Your task to perform on an android device: check storage Image 0: 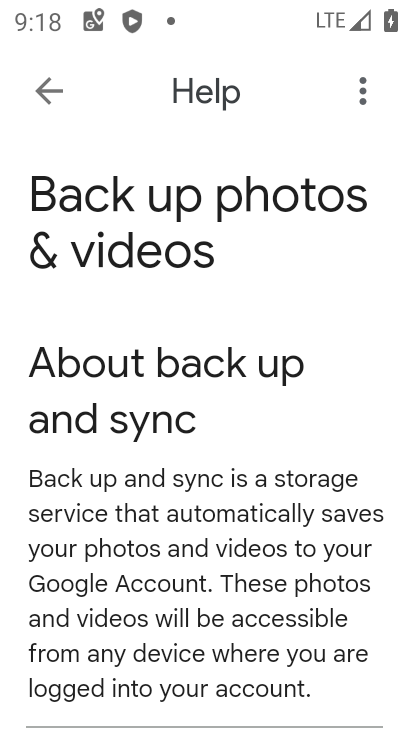
Step 0: press home button
Your task to perform on an android device: check storage Image 1: 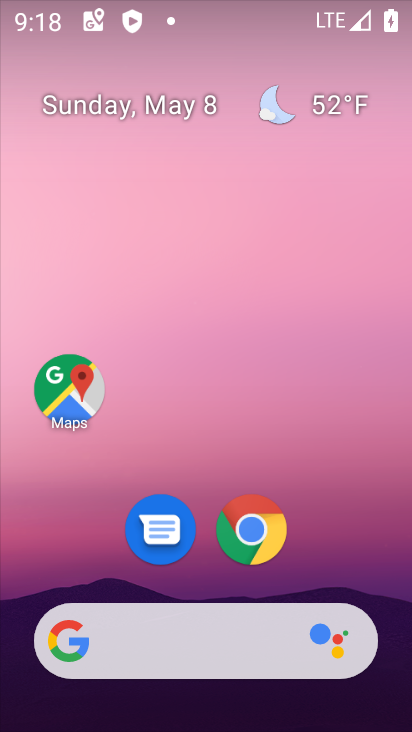
Step 1: drag from (378, 559) to (363, 34)
Your task to perform on an android device: check storage Image 2: 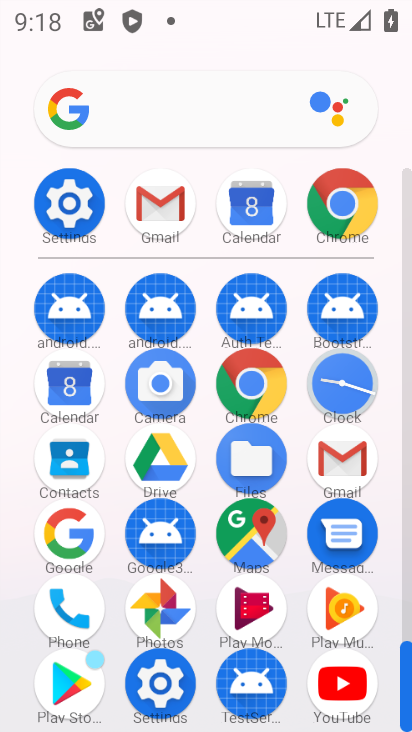
Step 2: click (68, 220)
Your task to perform on an android device: check storage Image 3: 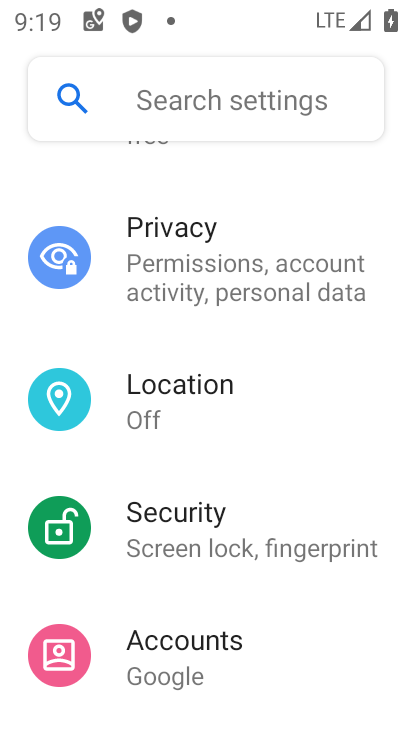
Step 3: drag from (296, 293) to (269, 649)
Your task to perform on an android device: check storage Image 4: 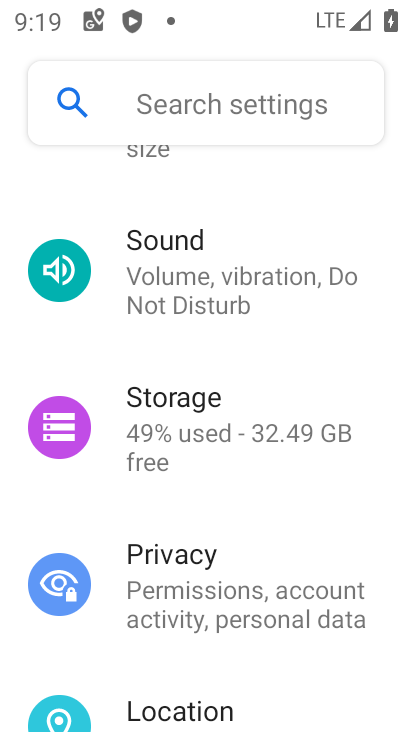
Step 4: drag from (294, 383) to (302, 614)
Your task to perform on an android device: check storage Image 5: 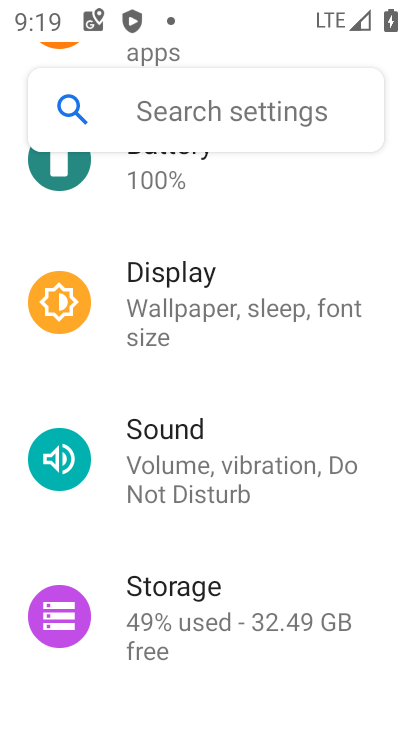
Step 5: drag from (308, 283) to (311, 632)
Your task to perform on an android device: check storage Image 6: 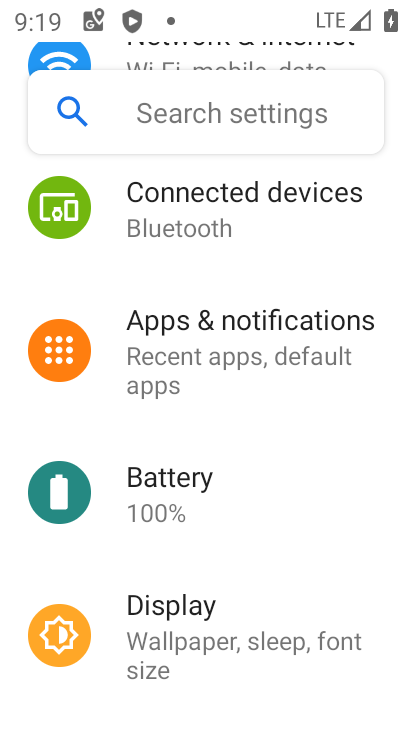
Step 6: drag from (290, 601) to (342, 341)
Your task to perform on an android device: check storage Image 7: 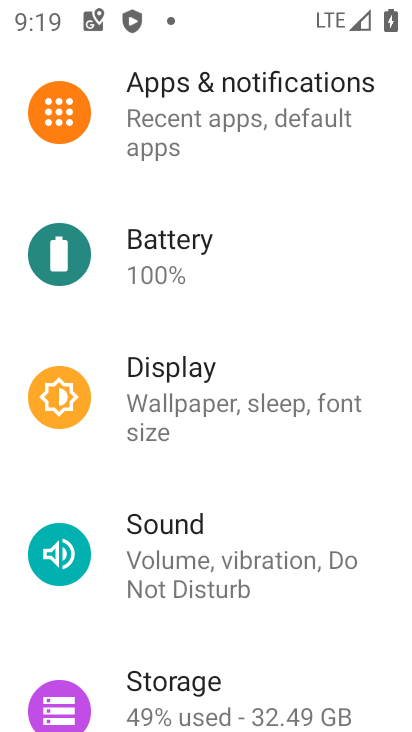
Step 7: click (223, 682)
Your task to perform on an android device: check storage Image 8: 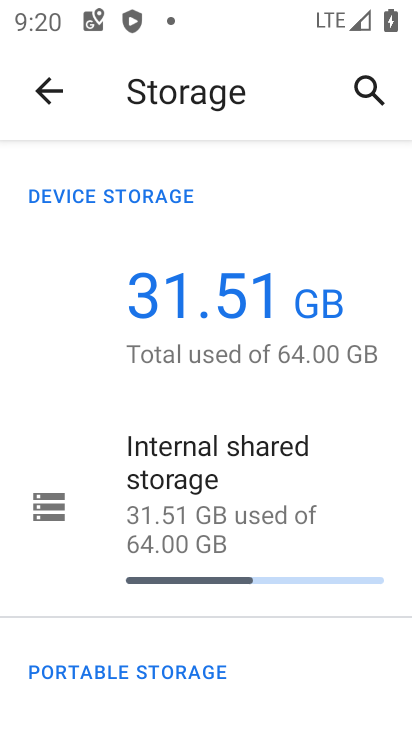
Step 8: task complete